Your task to perform on an android device: toggle wifi Image 0: 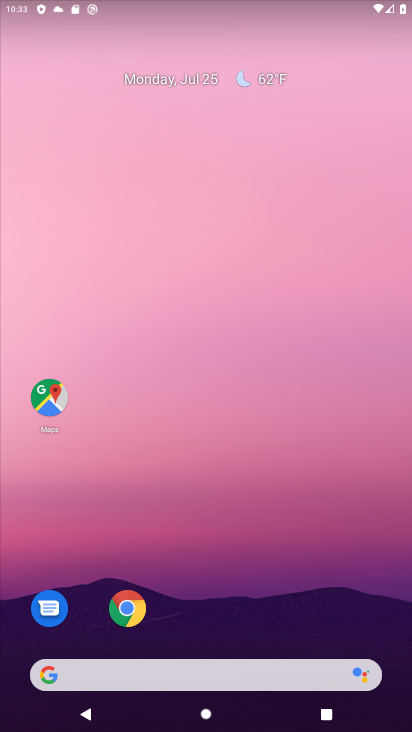
Step 0: drag from (224, 521) to (217, 293)
Your task to perform on an android device: toggle wifi Image 1: 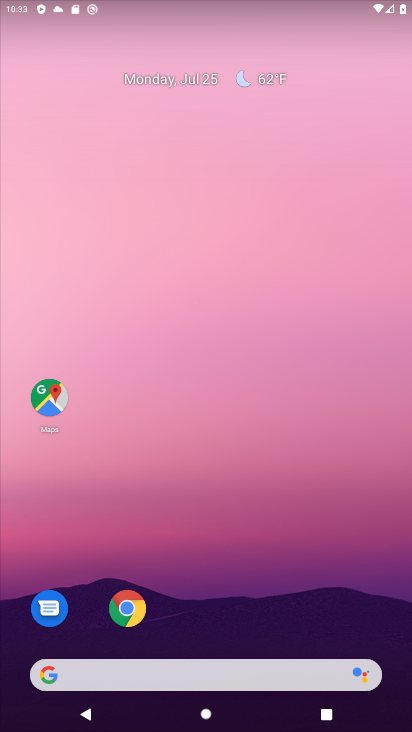
Step 1: drag from (213, 549) to (0, 146)
Your task to perform on an android device: toggle wifi Image 2: 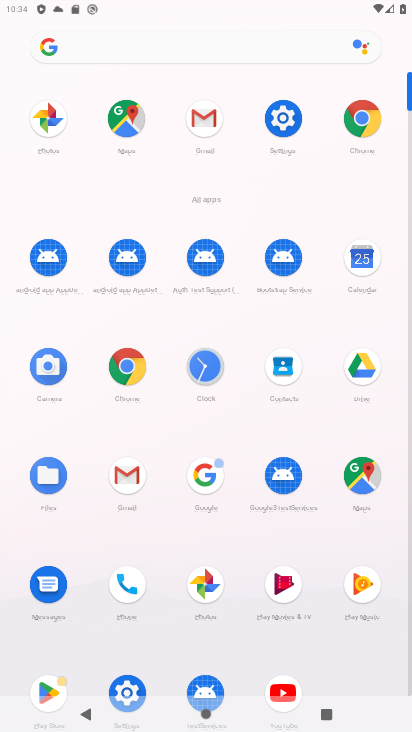
Step 2: click (279, 117)
Your task to perform on an android device: toggle wifi Image 3: 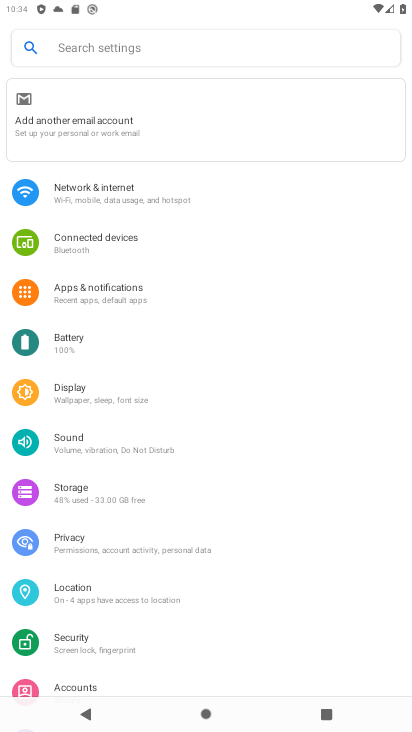
Step 3: click (136, 196)
Your task to perform on an android device: toggle wifi Image 4: 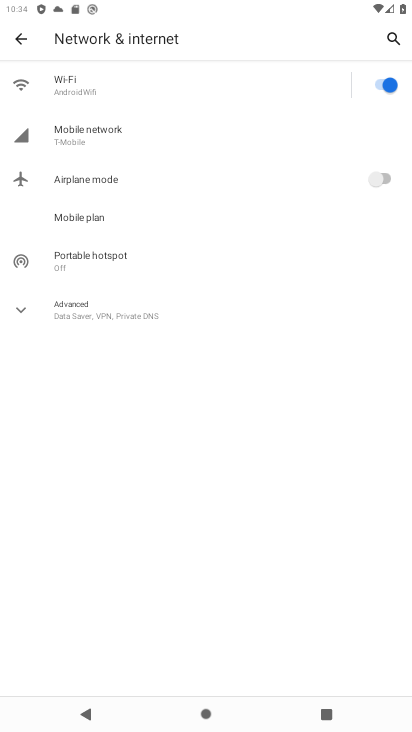
Step 4: click (369, 82)
Your task to perform on an android device: toggle wifi Image 5: 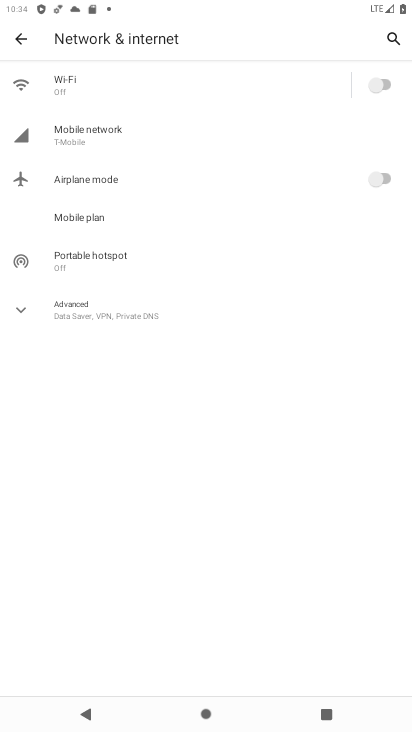
Step 5: task complete